Your task to perform on an android device: Go to Wikipedia Image 0: 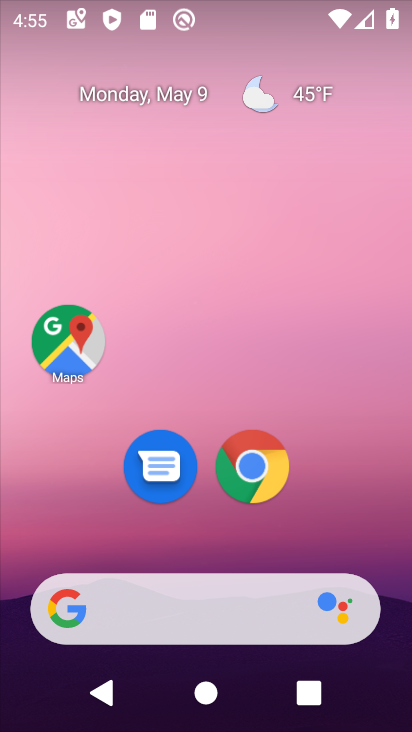
Step 0: drag from (322, 513) to (291, 8)
Your task to perform on an android device: Go to Wikipedia Image 1: 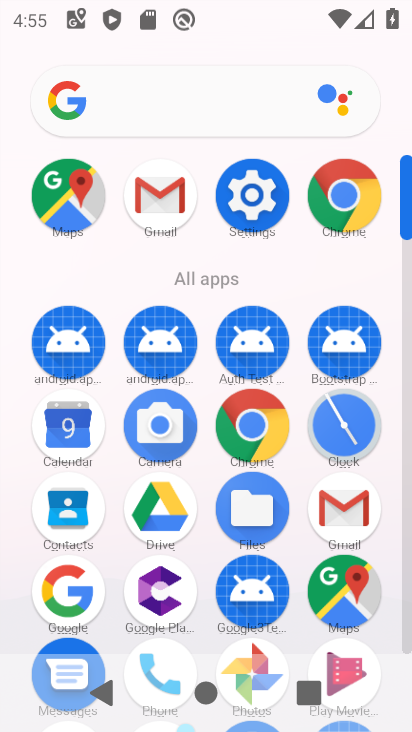
Step 1: click (344, 193)
Your task to perform on an android device: Go to Wikipedia Image 2: 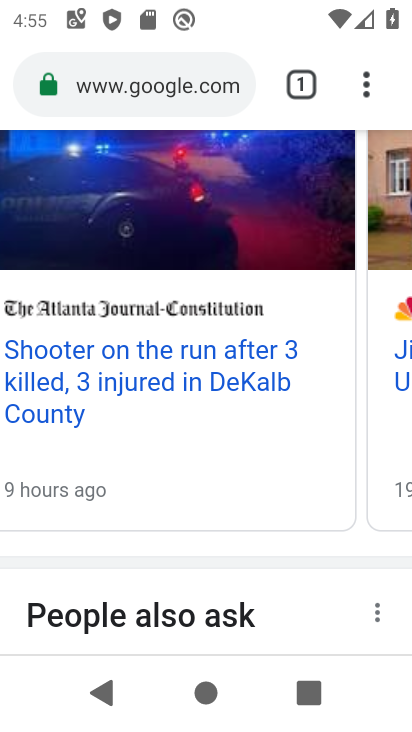
Step 2: click (199, 92)
Your task to perform on an android device: Go to Wikipedia Image 3: 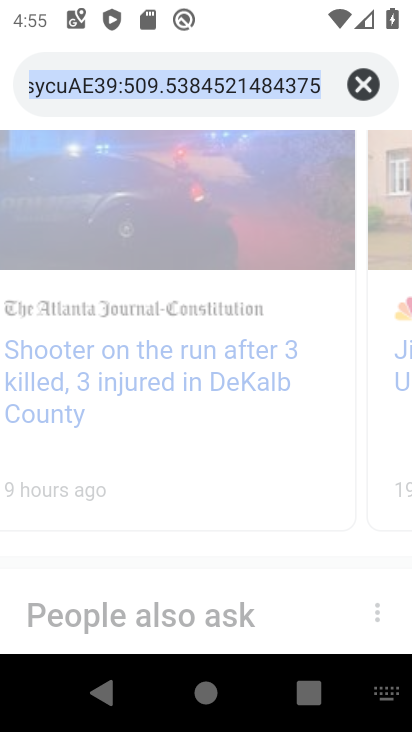
Step 3: click (367, 79)
Your task to perform on an android device: Go to Wikipedia Image 4: 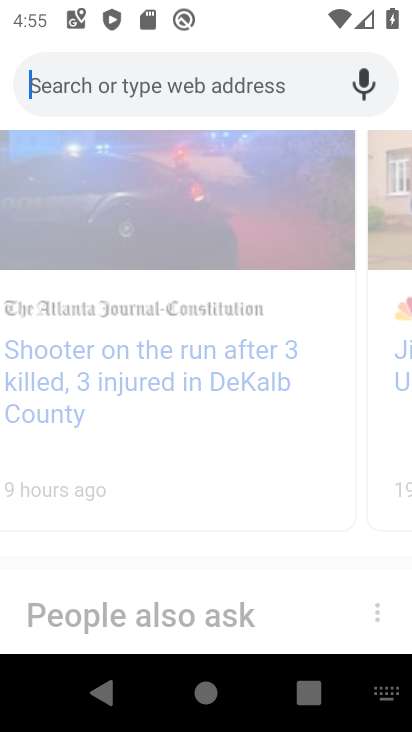
Step 4: type " Wikipedia"
Your task to perform on an android device: Go to Wikipedia Image 5: 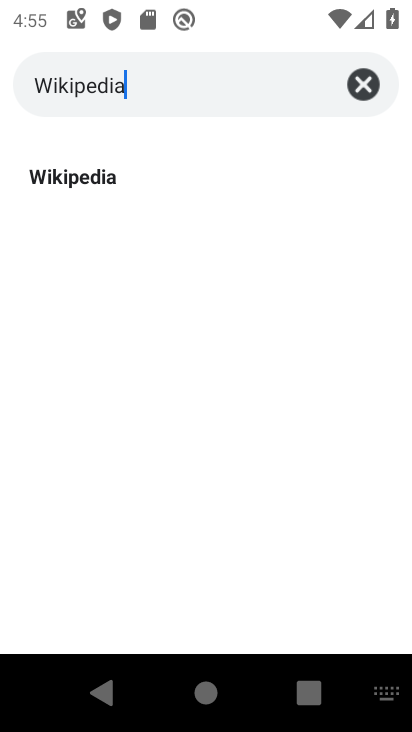
Step 5: type ""
Your task to perform on an android device: Go to Wikipedia Image 6: 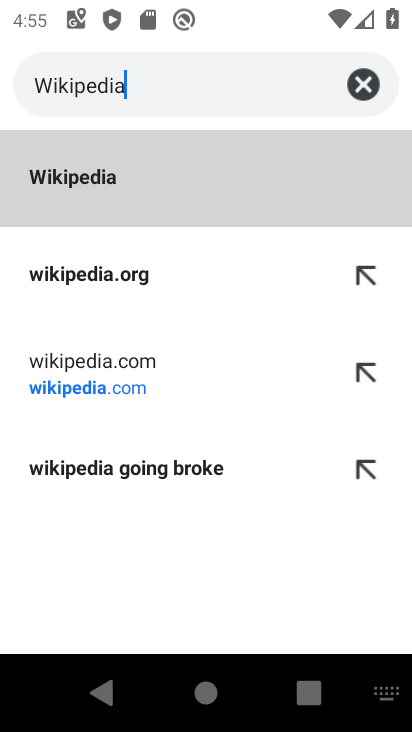
Step 6: click (116, 277)
Your task to perform on an android device: Go to Wikipedia Image 7: 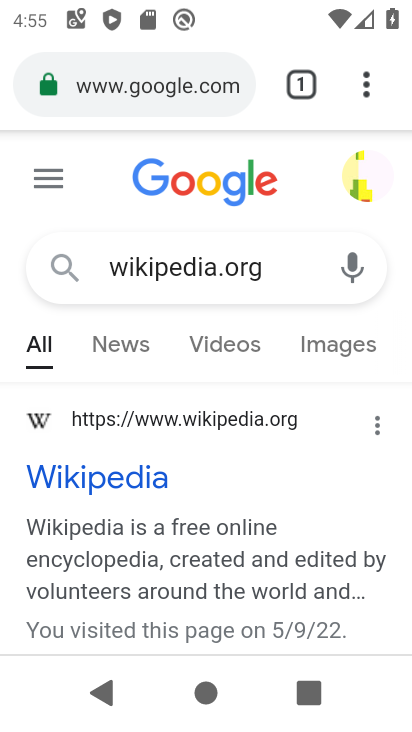
Step 7: click (119, 483)
Your task to perform on an android device: Go to Wikipedia Image 8: 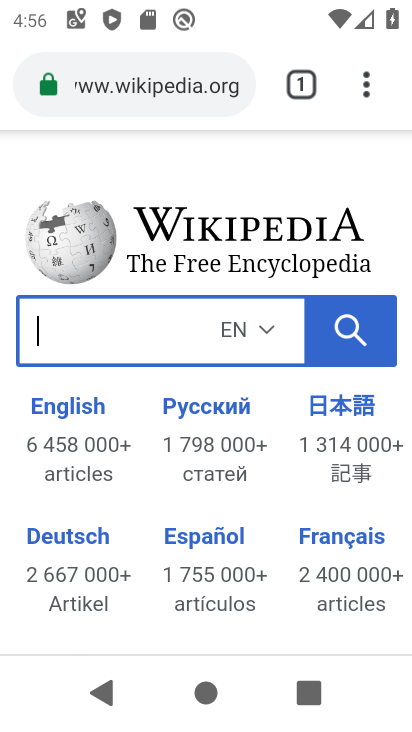
Step 8: task complete